Your task to perform on an android device: Go to calendar. Show me events next week Image 0: 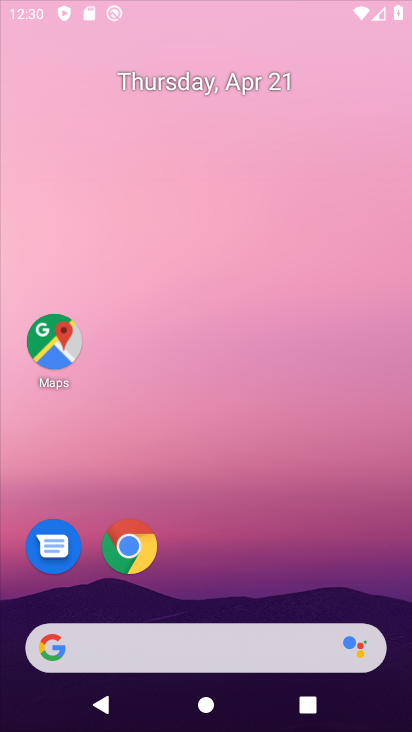
Step 0: click (293, 82)
Your task to perform on an android device: Go to calendar. Show me events next week Image 1: 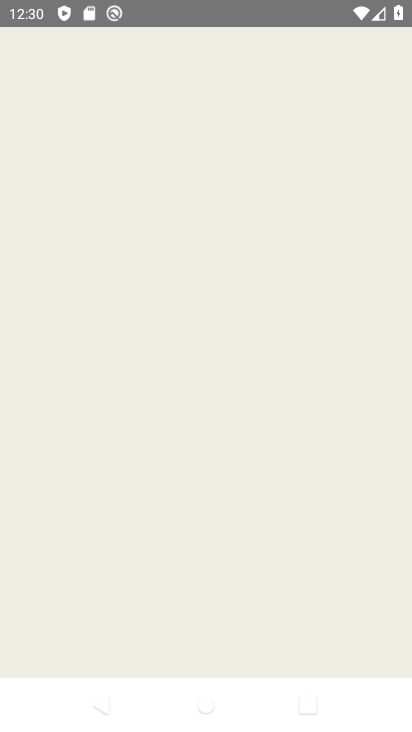
Step 1: press home button
Your task to perform on an android device: Go to calendar. Show me events next week Image 2: 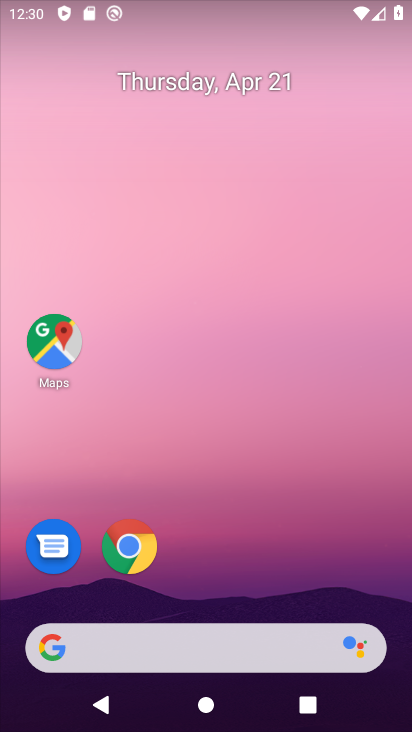
Step 2: drag from (231, 400) to (209, 148)
Your task to perform on an android device: Go to calendar. Show me events next week Image 3: 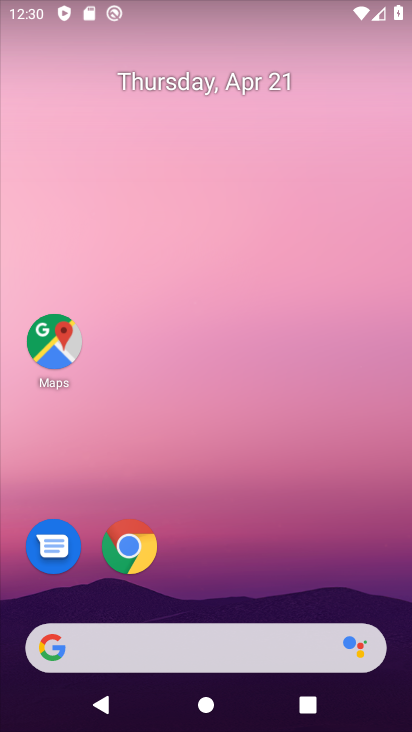
Step 3: drag from (278, 546) to (285, 86)
Your task to perform on an android device: Go to calendar. Show me events next week Image 4: 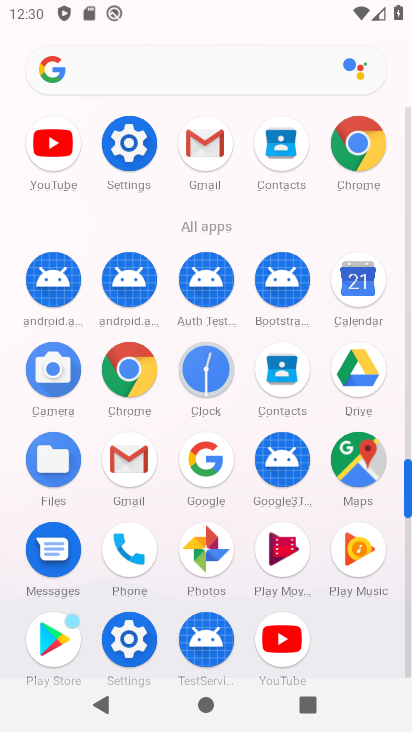
Step 4: click (361, 299)
Your task to perform on an android device: Go to calendar. Show me events next week Image 5: 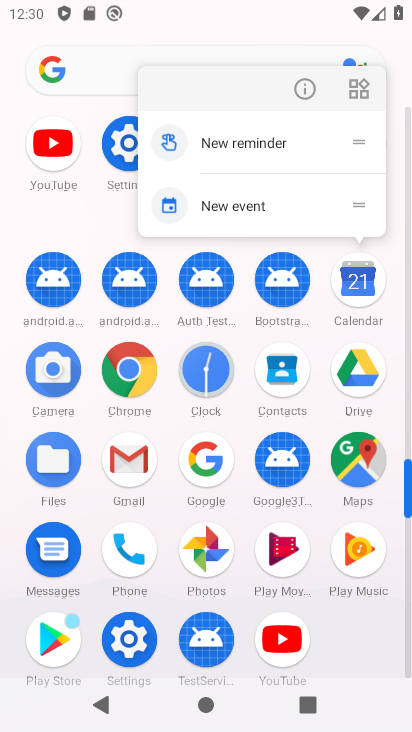
Step 5: click (358, 294)
Your task to perform on an android device: Go to calendar. Show me events next week Image 6: 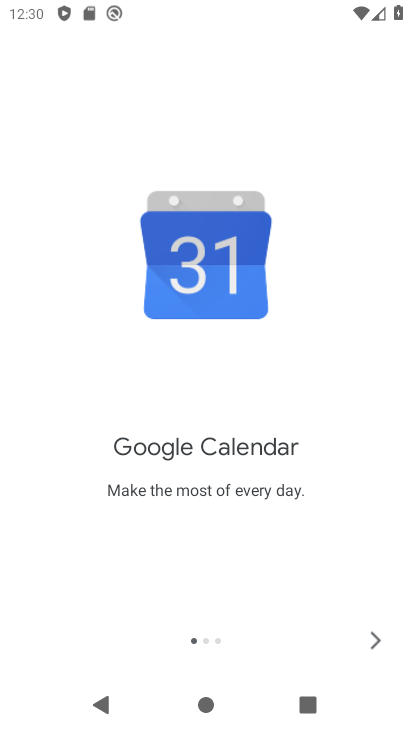
Step 6: click (359, 644)
Your task to perform on an android device: Go to calendar. Show me events next week Image 7: 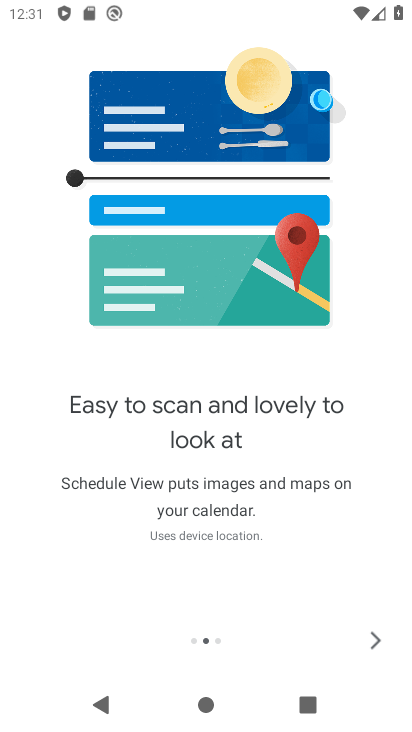
Step 7: click (368, 643)
Your task to perform on an android device: Go to calendar. Show me events next week Image 8: 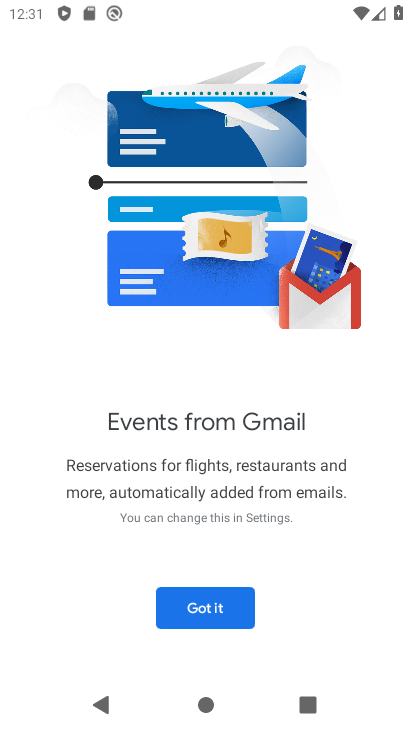
Step 8: click (233, 614)
Your task to perform on an android device: Go to calendar. Show me events next week Image 9: 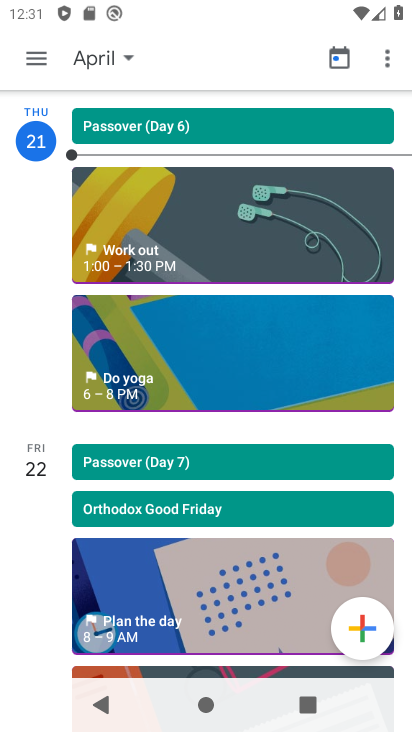
Step 9: click (115, 62)
Your task to perform on an android device: Go to calendar. Show me events next week Image 10: 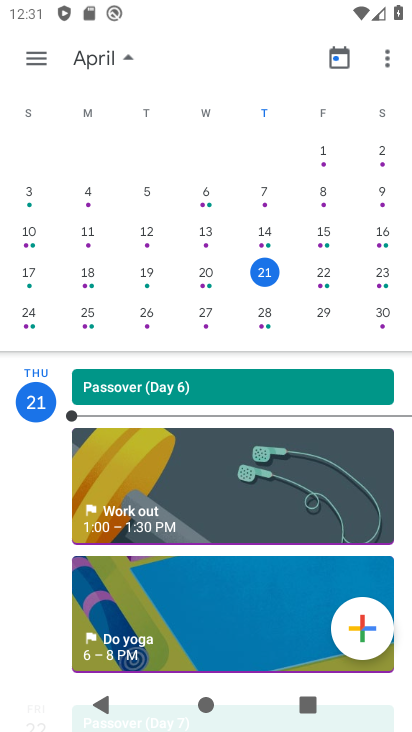
Step 10: click (35, 314)
Your task to perform on an android device: Go to calendar. Show me events next week Image 11: 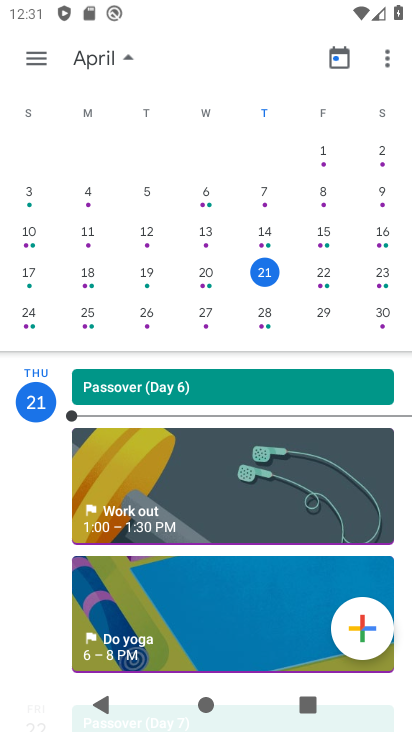
Step 11: click (86, 324)
Your task to perform on an android device: Go to calendar. Show me events next week Image 12: 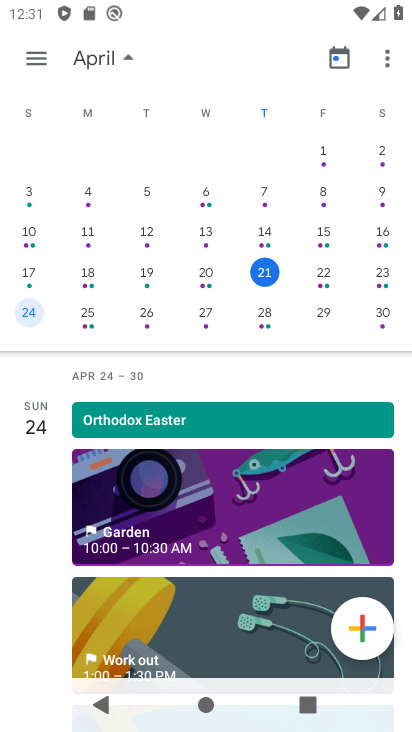
Step 12: click (149, 323)
Your task to perform on an android device: Go to calendar. Show me events next week Image 13: 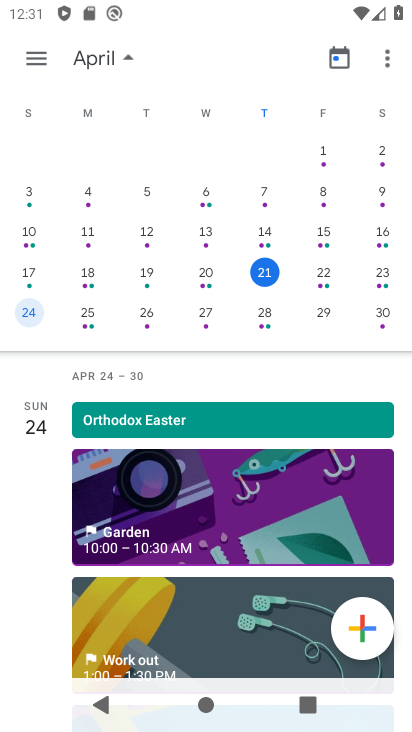
Step 13: click (208, 324)
Your task to perform on an android device: Go to calendar. Show me events next week Image 14: 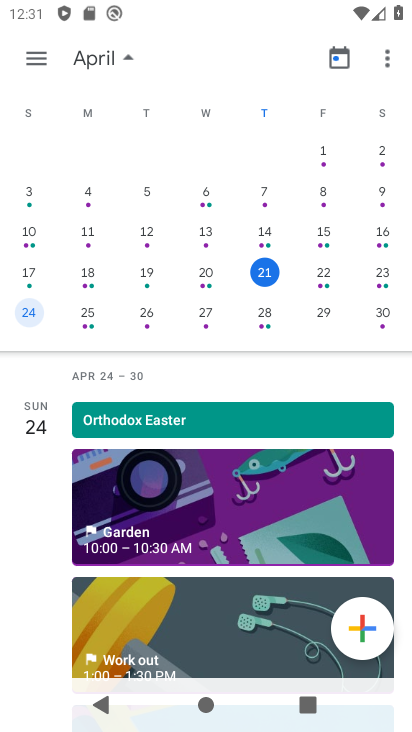
Step 14: click (264, 322)
Your task to perform on an android device: Go to calendar. Show me events next week Image 15: 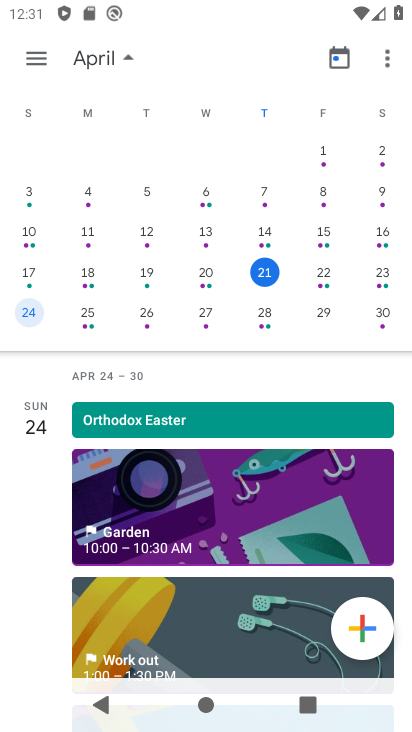
Step 15: click (324, 310)
Your task to perform on an android device: Go to calendar. Show me events next week Image 16: 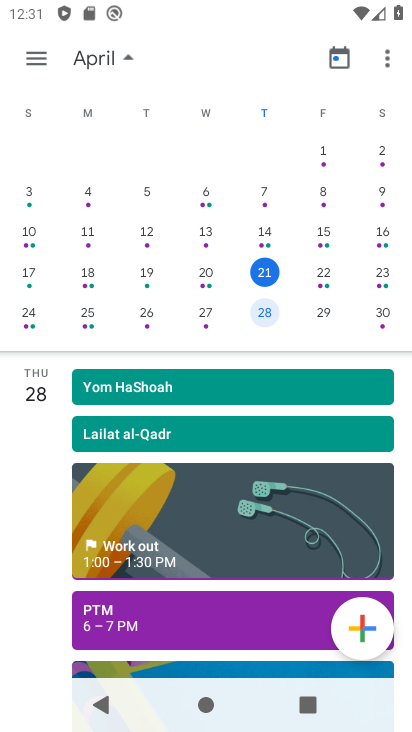
Step 16: task complete